Your task to perform on an android device: Play the last video I watched on Youtube Image 0: 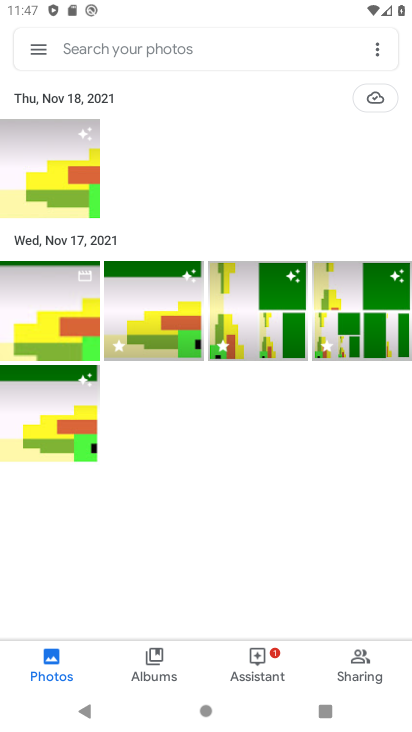
Step 0: press back button
Your task to perform on an android device: Play the last video I watched on Youtube Image 1: 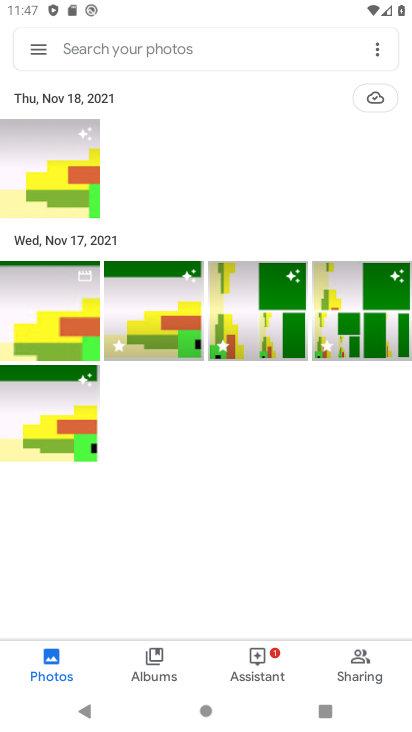
Step 1: press back button
Your task to perform on an android device: Play the last video I watched on Youtube Image 2: 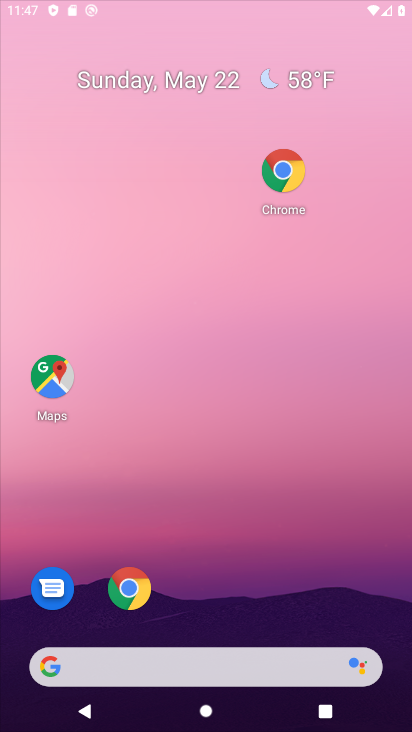
Step 2: press back button
Your task to perform on an android device: Play the last video I watched on Youtube Image 3: 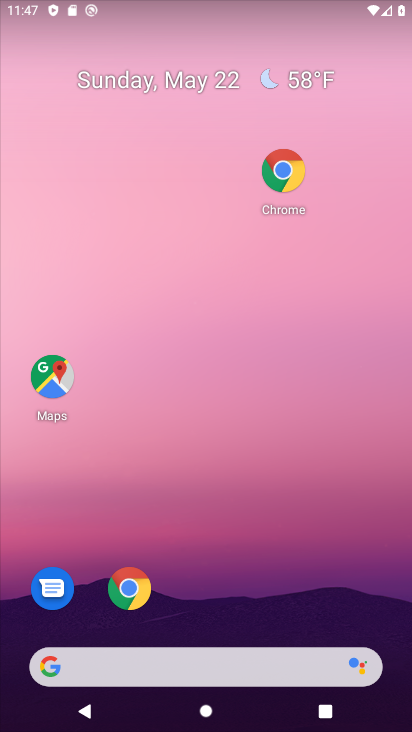
Step 3: press back button
Your task to perform on an android device: Play the last video I watched on Youtube Image 4: 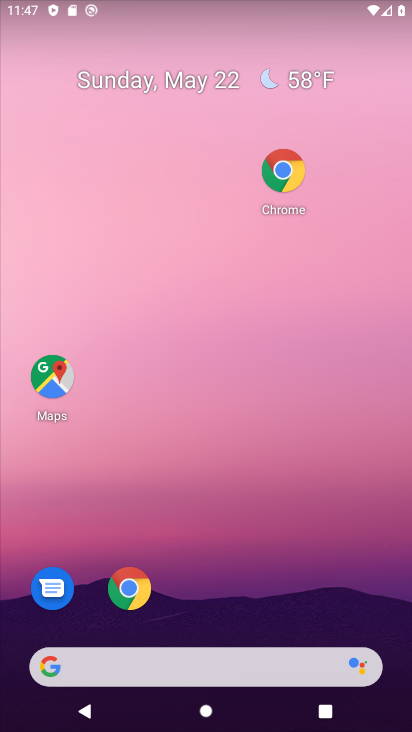
Step 4: drag from (284, 684) to (225, 47)
Your task to perform on an android device: Play the last video I watched on Youtube Image 5: 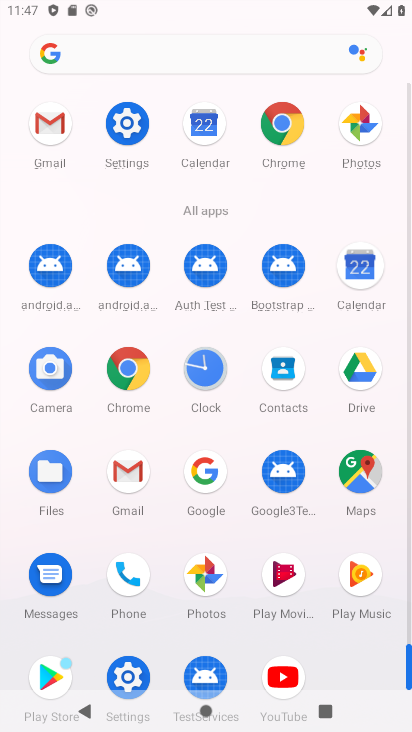
Step 5: click (281, 673)
Your task to perform on an android device: Play the last video I watched on Youtube Image 6: 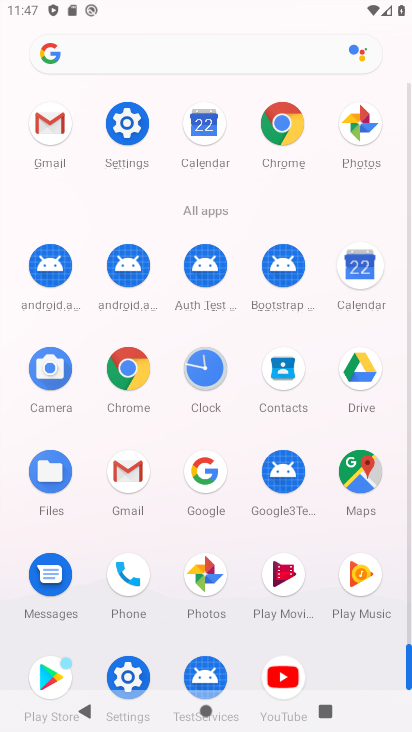
Step 6: click (281, 674)
Your task to perform on an android device: Play the last video I watched on Youtube Image 7: 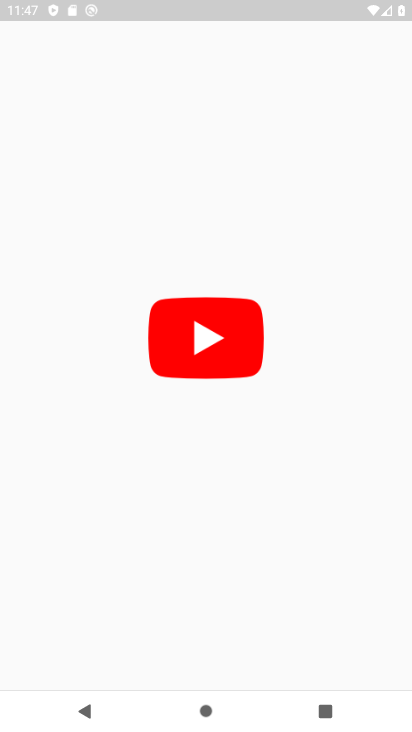
Step 7: click (282, 674)
Your task to perform on an android device: Play the last video I watched on Youtube Image 8: 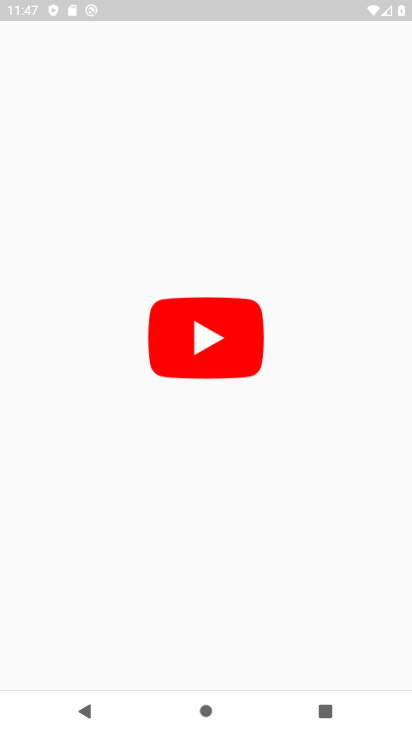
Step 8: click (286, 673)
Your task to perform on an android device: Play the last video I watched on Youtube Image 9: 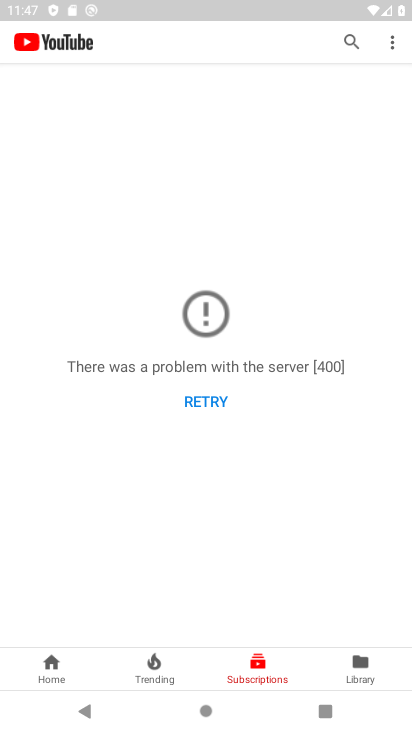
Step 9: task complete